Your task to perform on an android device: Open Amazon Image 0: 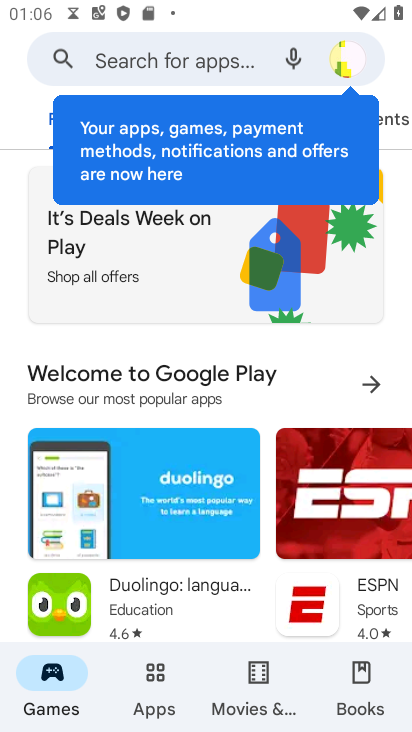
Step 0: press home button
Your task to perform on an android device: Open Amazon Image 1: 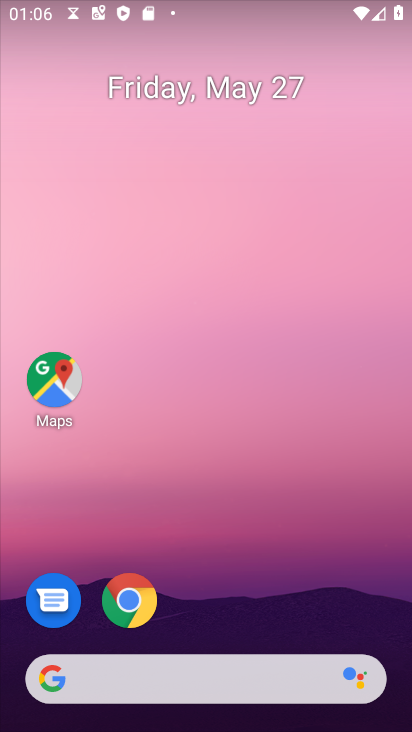
Step 1: click (141, 611)
Your task to perform on an android device: Open Amazon Image 2: 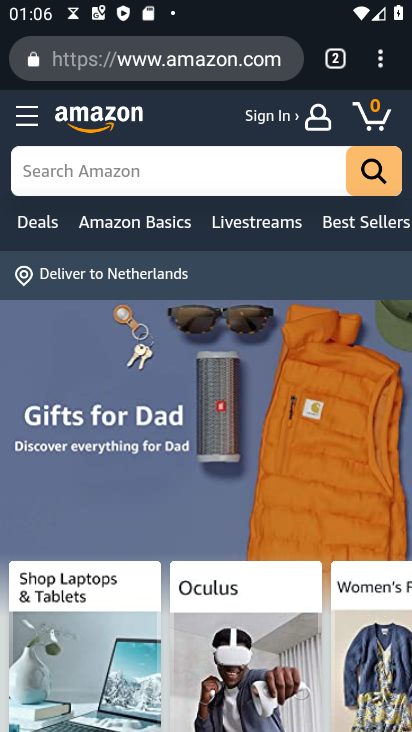
Step 2: task complete